Your task to perform on an android device: check the backup settings in the google photos Image 0: 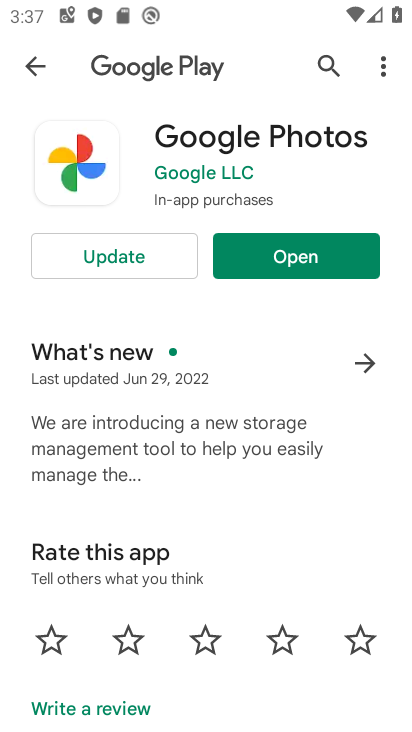
Step 0: click (303, 254)
Your task to perform on an android device: check the backup settings in the google photos Image 1: 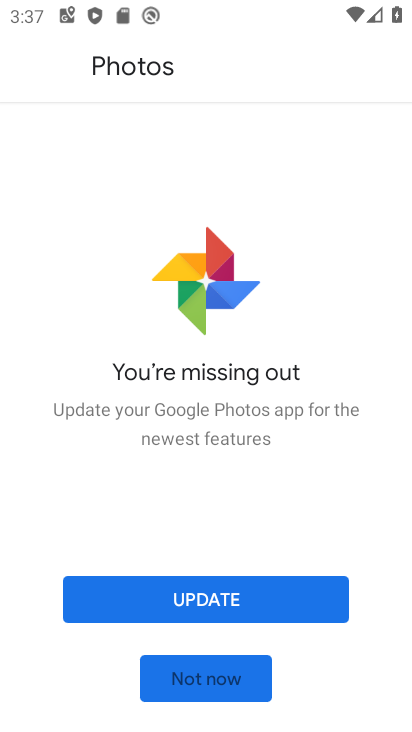
Step 1: click (231, 671)
Your task to perform on an android device: check the backup settings in the google photos Image 2: 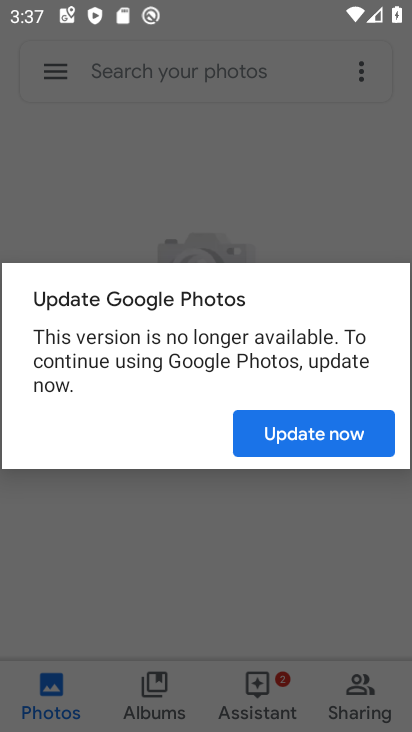
Step 2: click (239, 680)
Your task to perform on an android device: check the backup settings in the google photos Image 3: 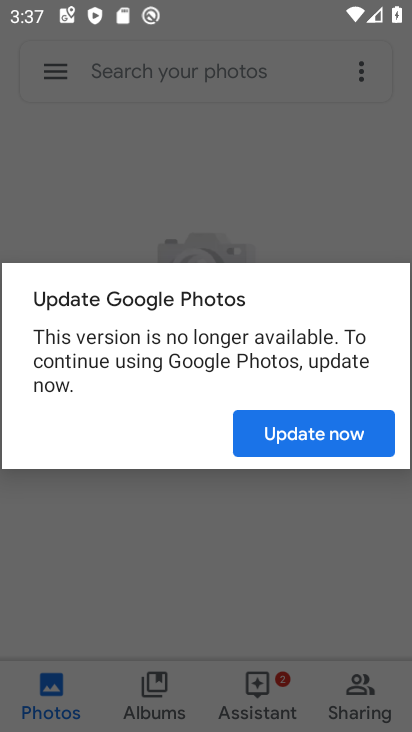
Step 3: click (337, 430)
Your task to perform on an android device: check the backup settings in the google photos Image 4: 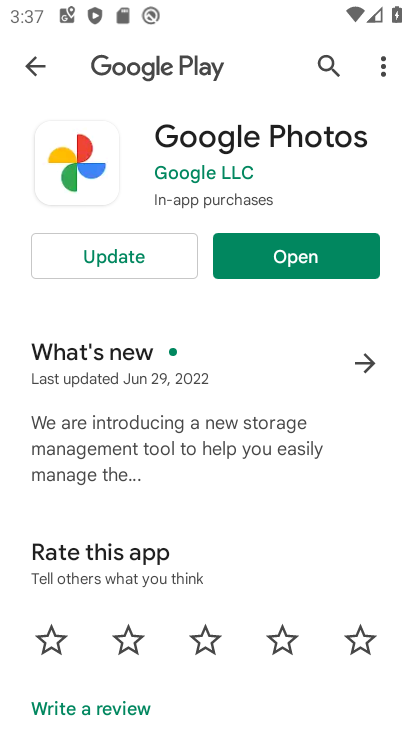
Step 4: click (325, 262)
Your task to perform on an android device: check the backup settings in the google photos Image 5: 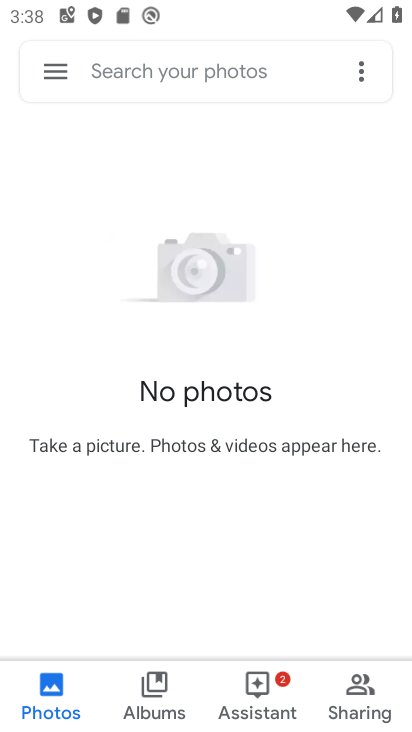
Step 5: click (44, 58)
Your task to perform on an android device: check the backup settings in the google photos Image 6: 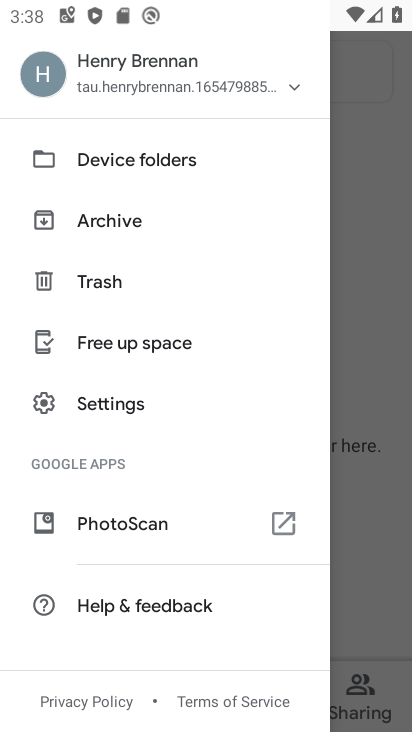
Step 6: click (114, 396)
Your task to perform on an android device: check the backup settings in the google photos Image 7: 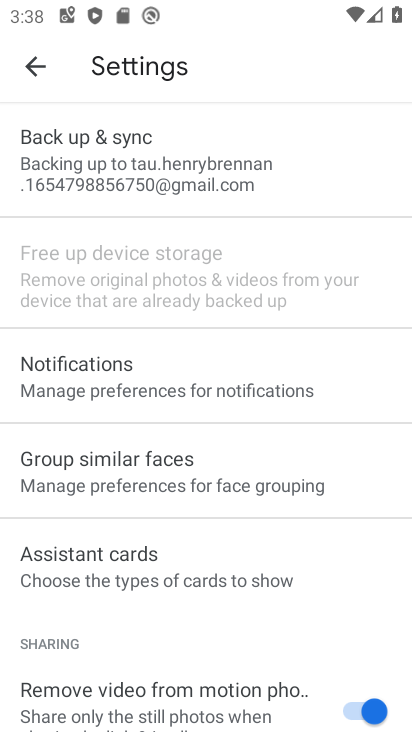
Step 7: click (200, 161)
Your task to perform on an android device: check the backup settings in the google photos Image 8: 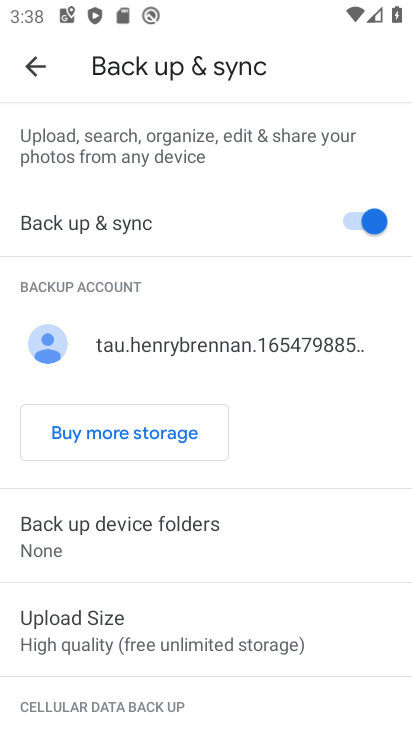
Step 8: task complete